Your task to perform on an android device: allow notifications from all sites in the chrome app Image 0: 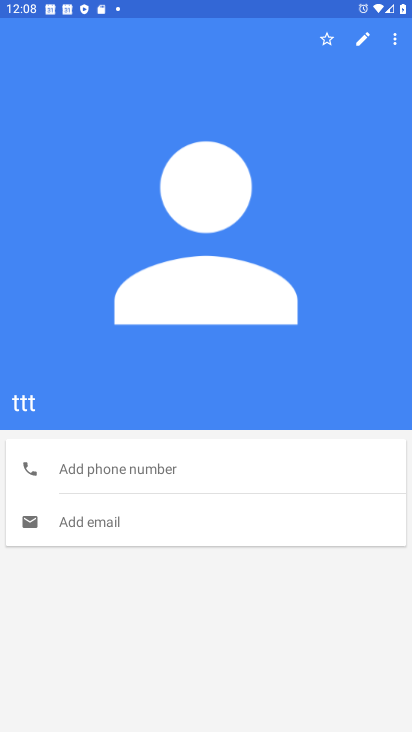
Step 0: drag from (190, 630) to (224, 382)
Your task to perform on an android device: allow notifications from all sites in the chrome app Image 1: 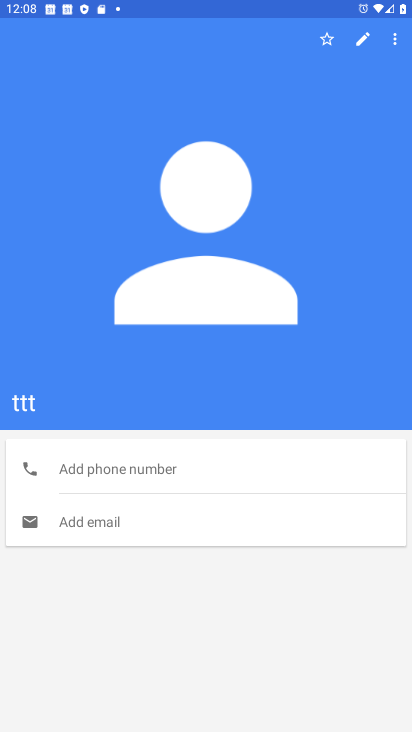
Step 1: press home button
Your task to perform on an android device: allow notifications from all sites in the chrome app Image 2: 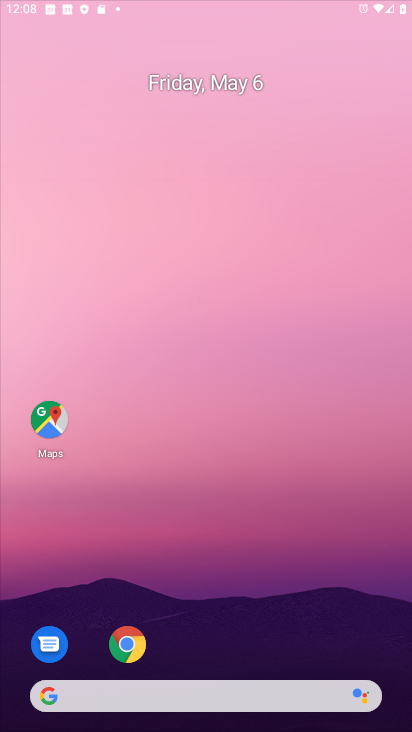
Step 2: drag from (221, 646) to (240, 257)
Your task to perform on an android device: allow notifications from all sites in the chrome app Image 3: 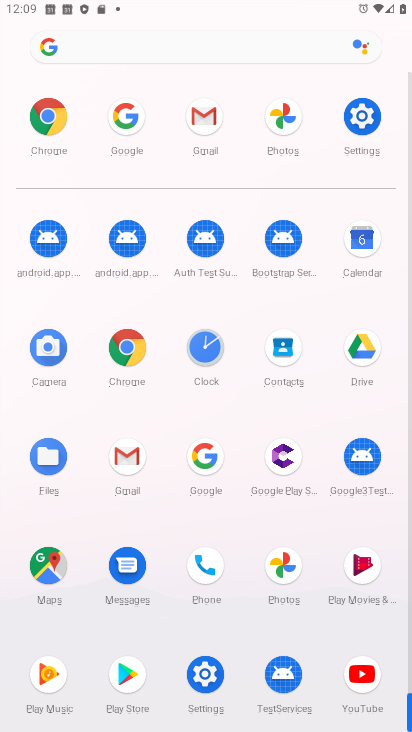
Step 3: click (122, 356)
Your task to perform on an android device: allow notifications from all sites in the chrome app Image 4: 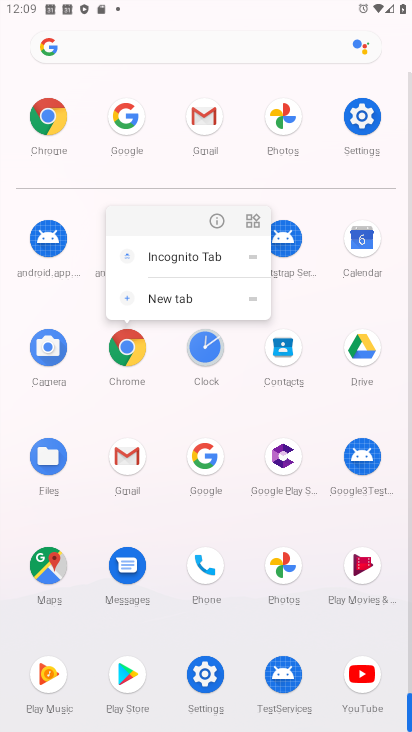
Step 4: click (213, 216)
Your task to perform on an android device: allow notifications from all sites in the chrome app Image 5: 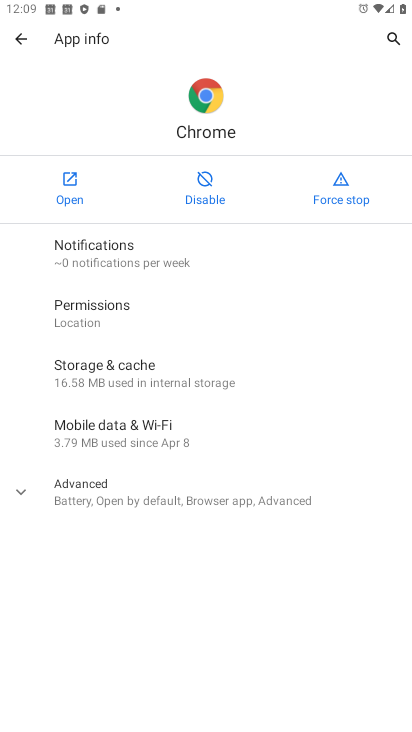
Step 5: click (70, 178)
Your task to perform on an android device: allow notifications from all sites in the chrome app Image 6: 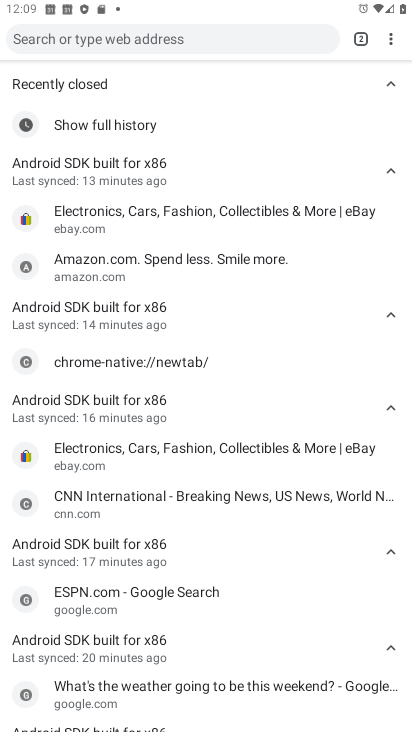
Step 6: drag from (183, 222) to (290, 623)
Your task to perform on an android device: allow notifications from all sites in the chrome app Image 7: 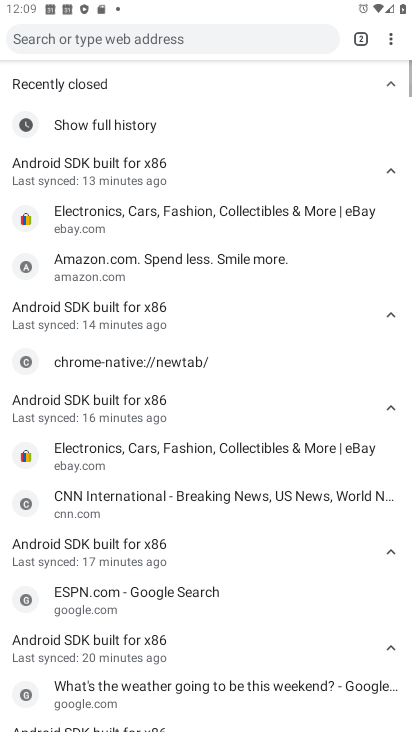
Step 7: drag from (273, 594) to (267, 185)
Your task to perform on an android device: allow notifications from all sites in the chrome app Image 8: 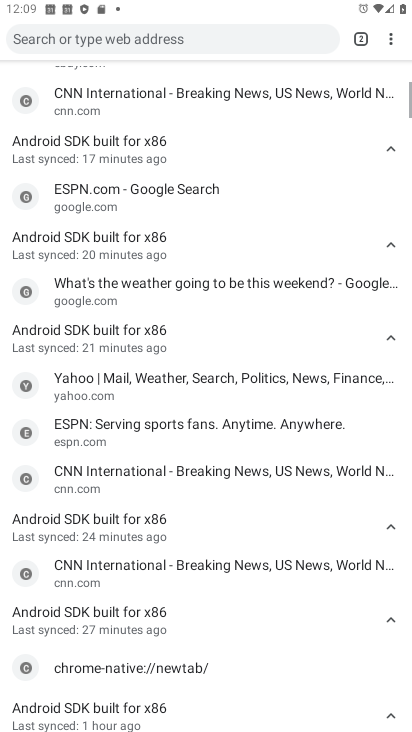
Step 8: drag from (250, 122) to (236, 610)
Your task to perform on an android device: allow notifications from all sites in the chrome app Image 9: 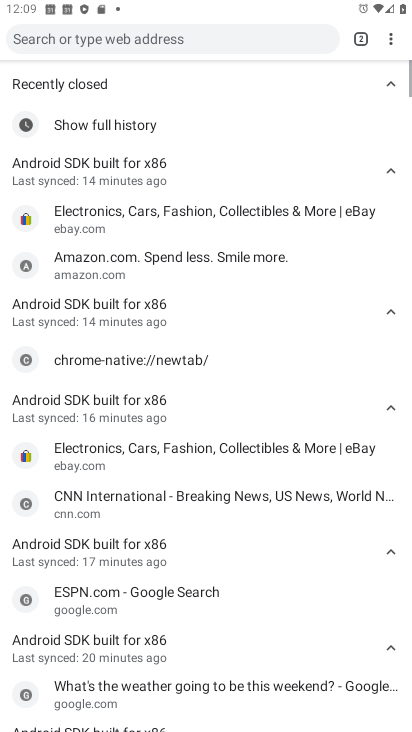
Step 9: drag from (250, 246) to (258, 552)
Your task to perform on an android device: allow notifications from all sites in the chrome app Image 10: 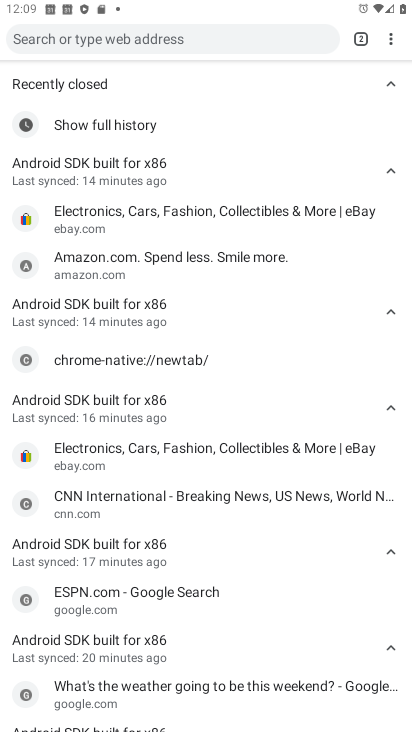
Step 10: drag from (187, 443) to (290, 203)
Your task to perform on an android device: allow notifications from all sites in the chrome app Image 11: 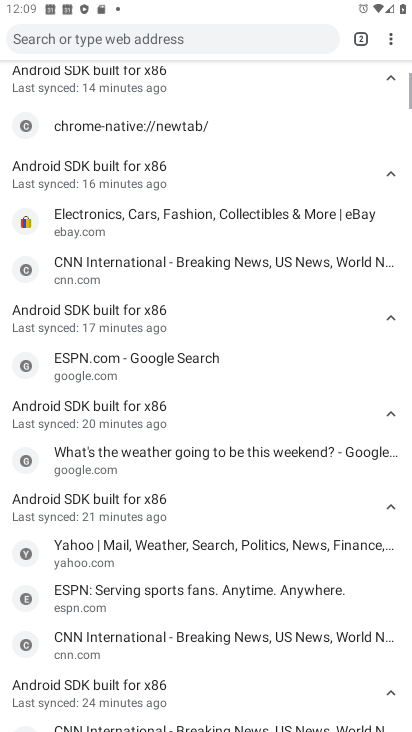
Step 11: drag from (288, 191) to (346, 532)
Your task to perform on an android device: allow notifications from all sites in the chrome app Image 12: 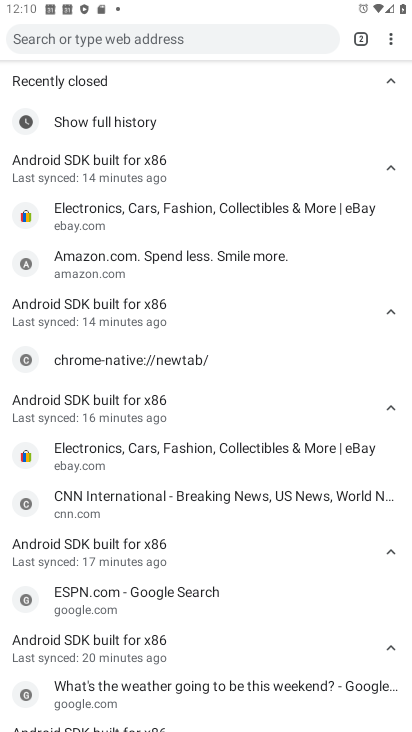
Step 12: drag from (392, 41) to (282, 332)
Your task to perform on an android device: allow notifications from all sites in the chrome app Image 13: 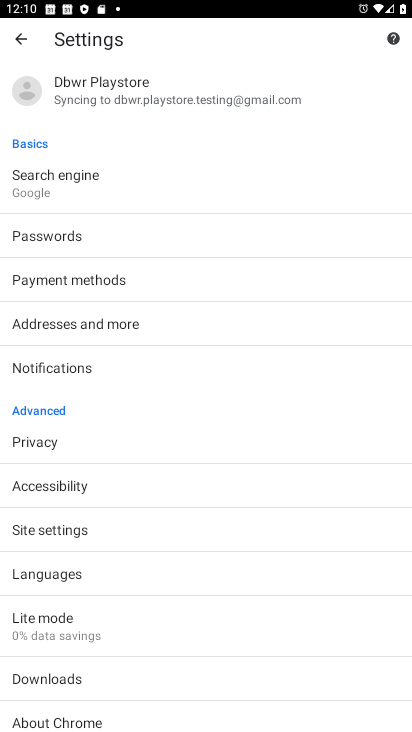
Step 13: drag from (90, 712) to (185, 238)
Your task to perform on an android device: allow notifications from all sites in the chrome app Image 14: 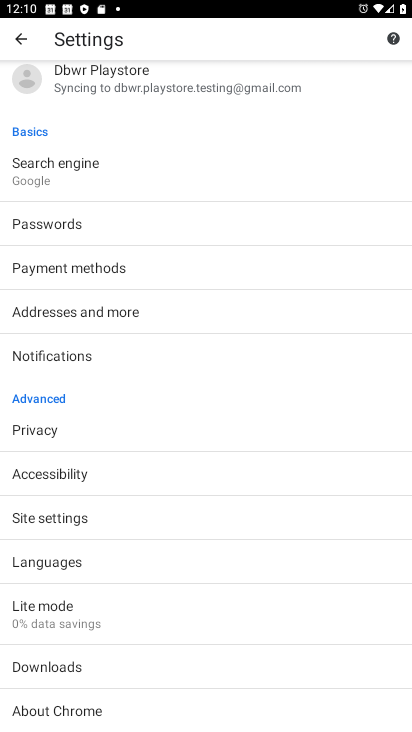
Step 14: drag from (170, 628) to (223, 289)
Your task to perform on an android device: allow notifications from all sites in the chrome app Image 15: 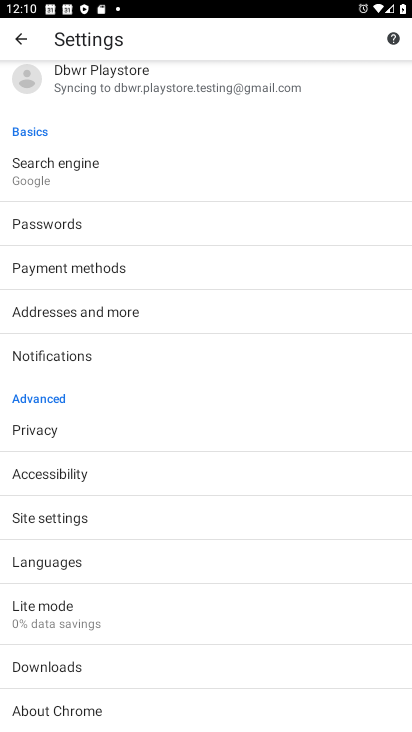
Step 15: drag from (133, 694) to (171, 337)
Your task to perform on an android device: allow notifications from all sites in the chrome app Image 16: 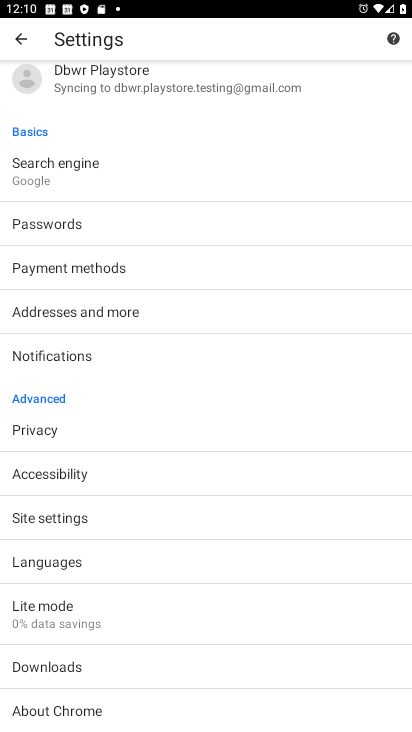
Step 16: drag from (152, 629) to (202, 234)
Your task to perform on an android device: allow notifications from all sites in the chrome app Image 17: 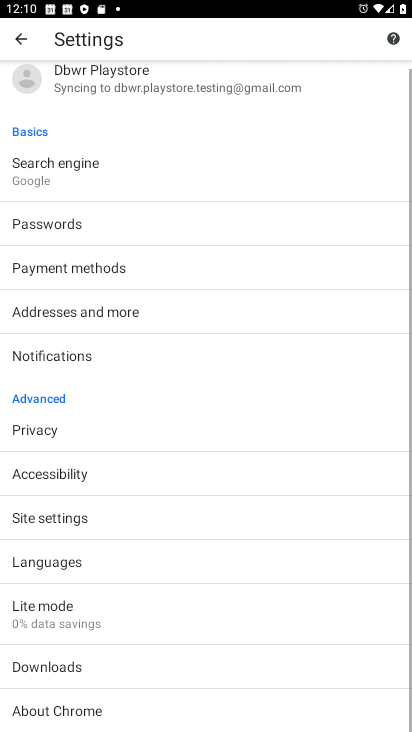
Step 17: drag from (123, 660) to (172, 266)
Your task to perform on an android device: allow notifications from all sites in the chrome app Image 18: 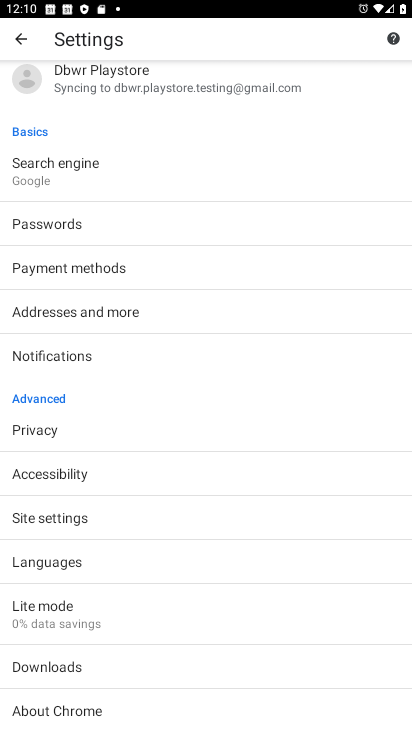
Step 18: click (133, 344)
Your task to perform on an android device: allow notifications from all sites in the chrome app Image 19: 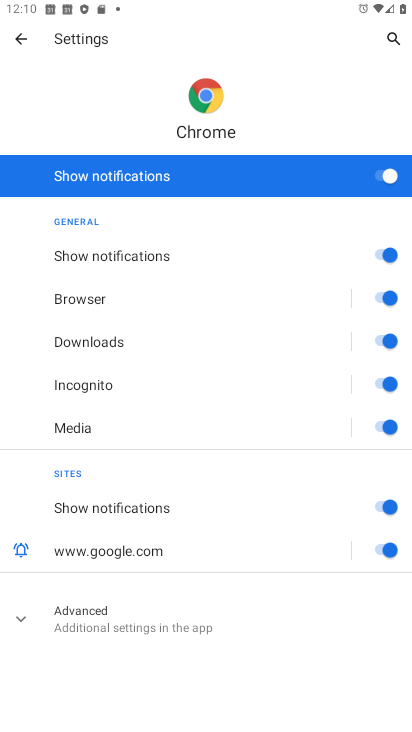
Step 19: drag from (163, 618) to (181, 204)
Your task to perform on an android device: allow notifications from all sites in the chrome app Image 20: 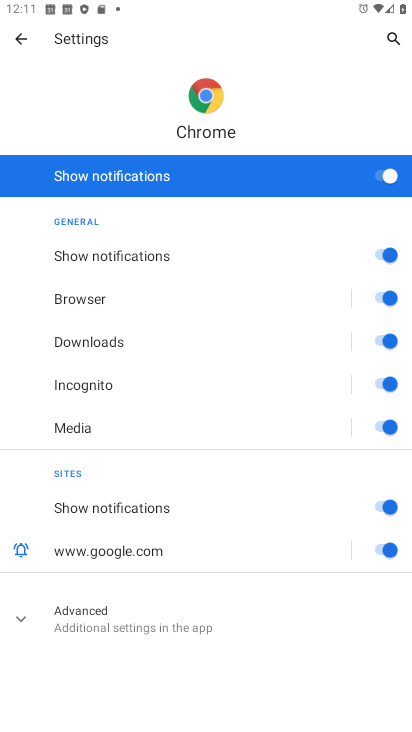
Step 20: press back button
Your task to perform on an android device: allow notifications from all sites in the chrome app Image 21: 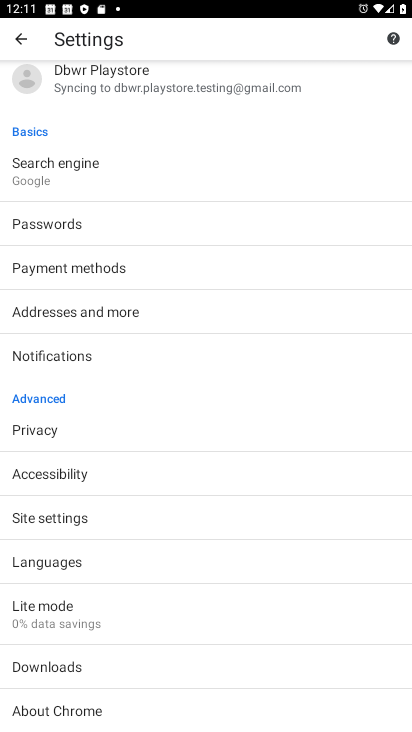
Step 21: click (76, 367)
Your task to perform on an android device: allow notifications from all sites in the chrome app Image 22: 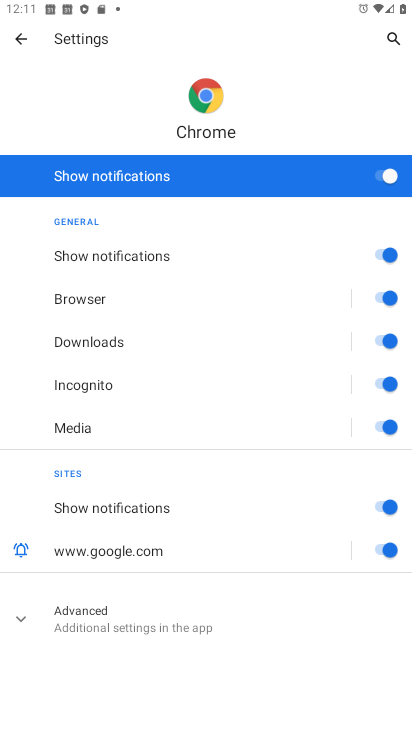
Step 22: press back button
Your task to perform on an android device: allow notifications from all sites in the chrome app Image 23: 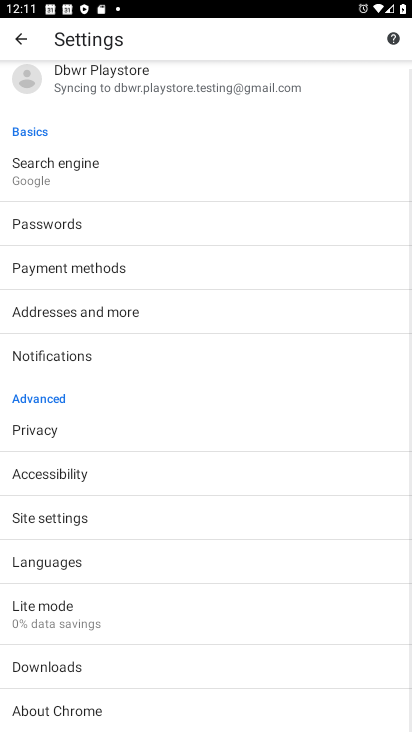
Step 23: click (89, 525)
Your task to perform on an android device: allow notifications from all sites in the chrome app Image 24: 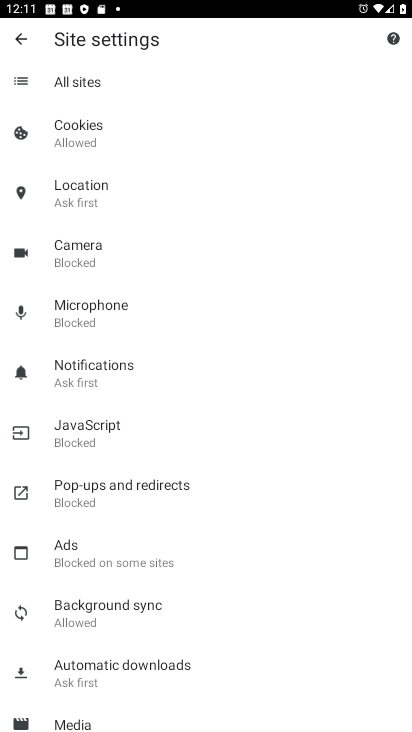
Step 24: click (99, 362)
Your task to perform on an android device: allow notifications from all sites in the chrome app Image 25: 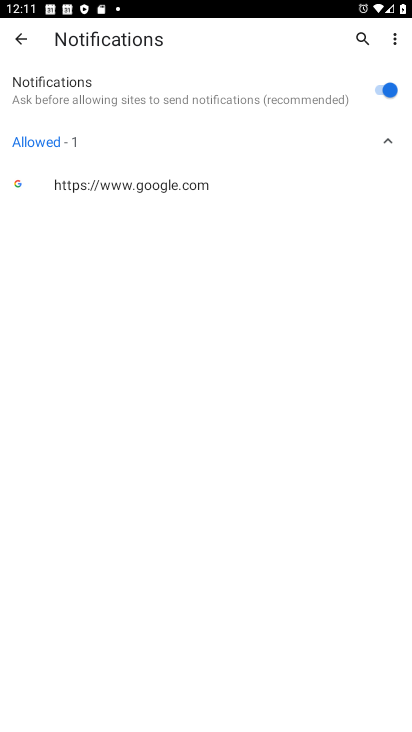
Step 25: task complete